Your task to perform on an android device: Show me recent news Image 0: 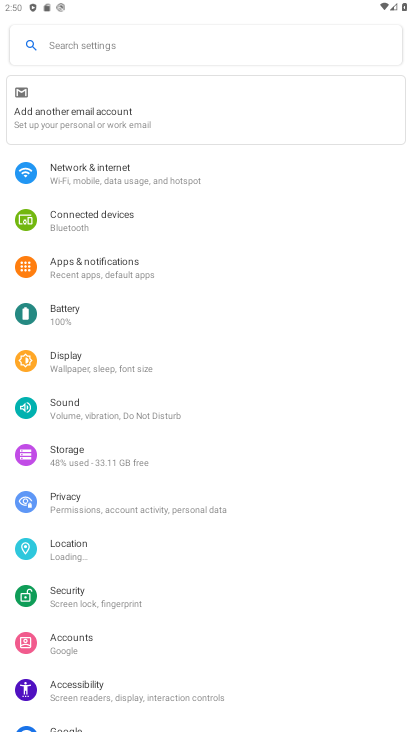
Step 0: press home button
Your task to perform on an android device: Show me recent news Image 1: 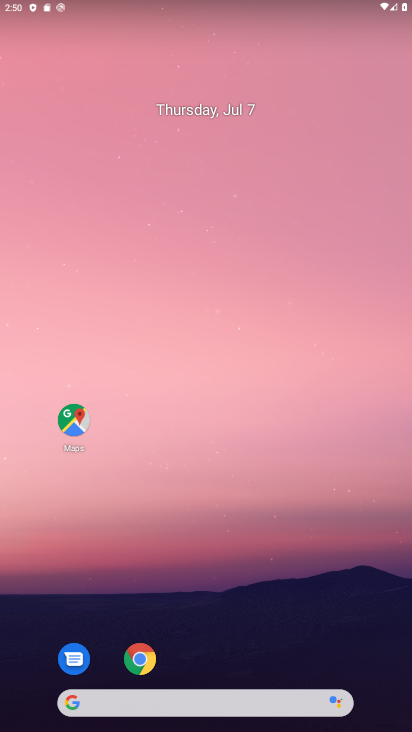
Step 1: click (145, 660)
Your task to perform on an android device: Show me recent news Image 2: 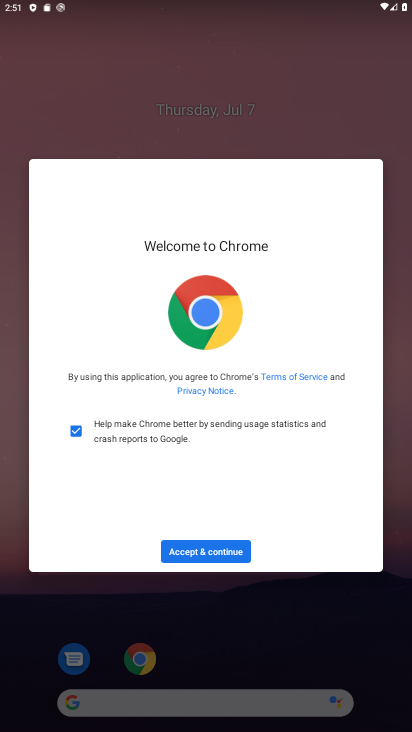
Step 2: click (228, 562)
Your task to perform on an android device: Show me recent news Image 3: 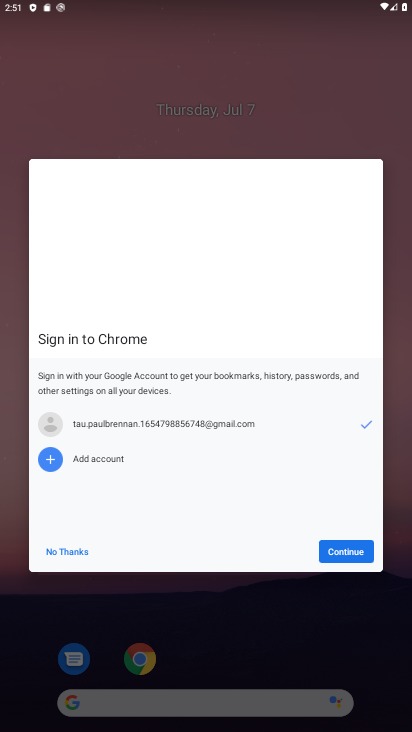
Step 3: click (346, 544)
Your task to perform on an android device: Show me recent news Image 4: 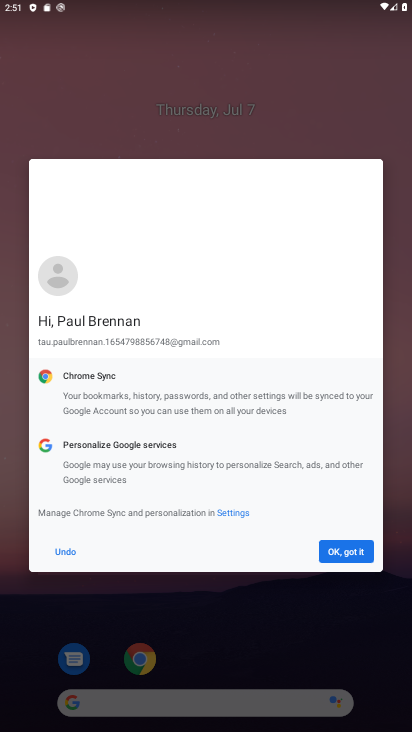
Step 4: click (343, 548)
Your task to perform on an android device: Show me recent news Image 5: 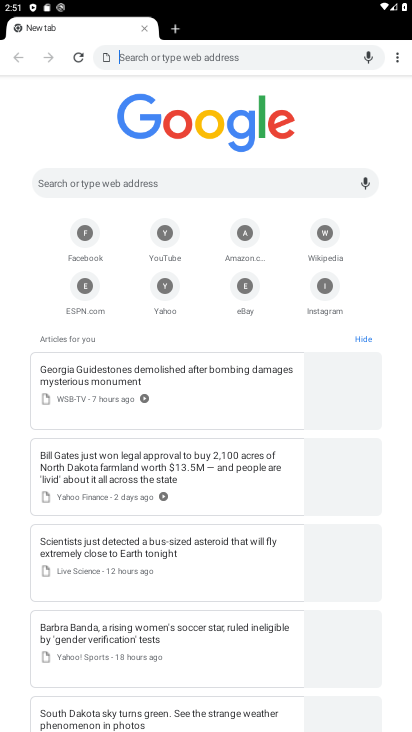
Step 5: task complete